Your task to perform on an android device: check data usage Image 0: 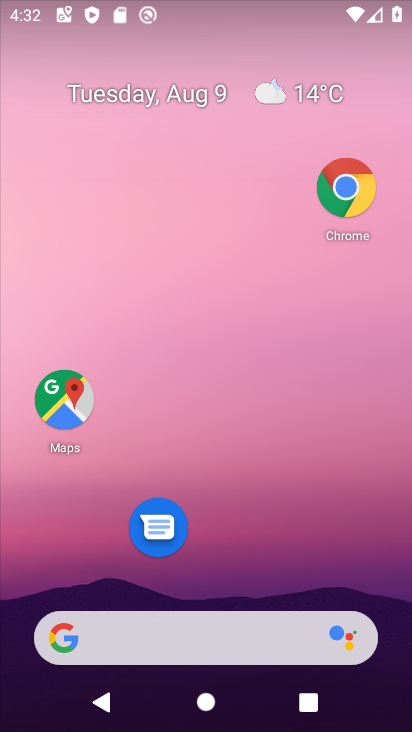
Step 0: drag from (217, 46) to (260, 515)
Your task to perform on an android device: check data usage Image 1: 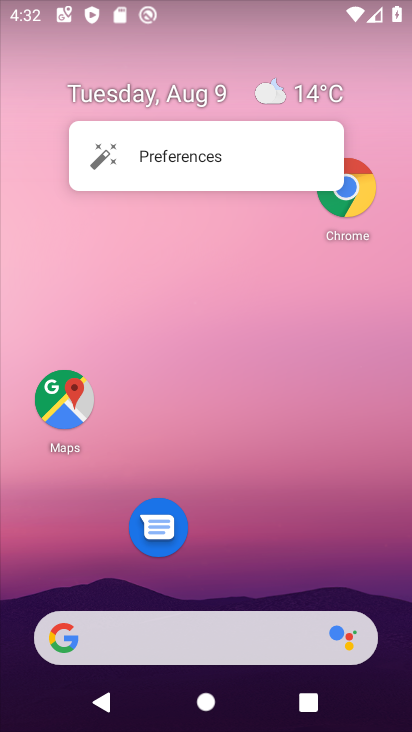
Step 1: drag from (205, 460) to (218, 511)
Your task to perform on an android device: check data usage Image 2: 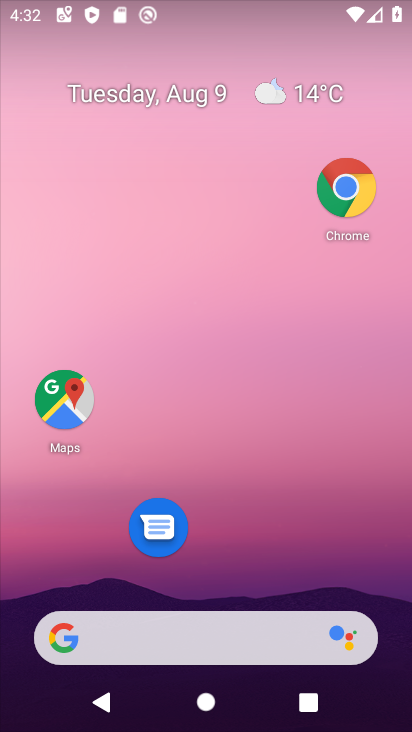
Step 2: drag from (172, 114) to (243, 474)
Your task to perform on an android device: check data usage Image 3: 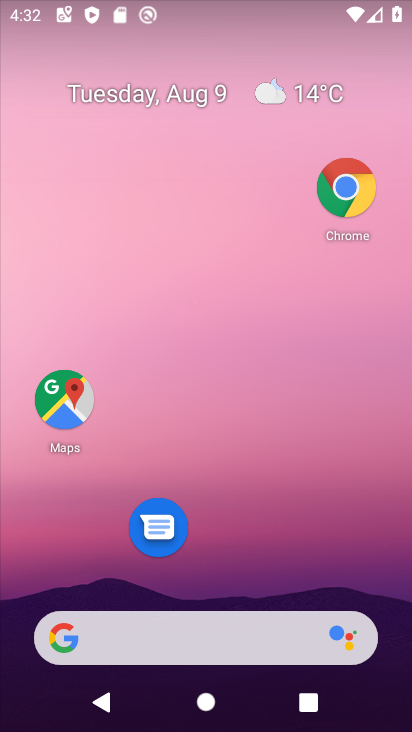
Step 3: drag from (213, 241) to (239, 630)
Your task to perform on an android device: check data usage Image 4: 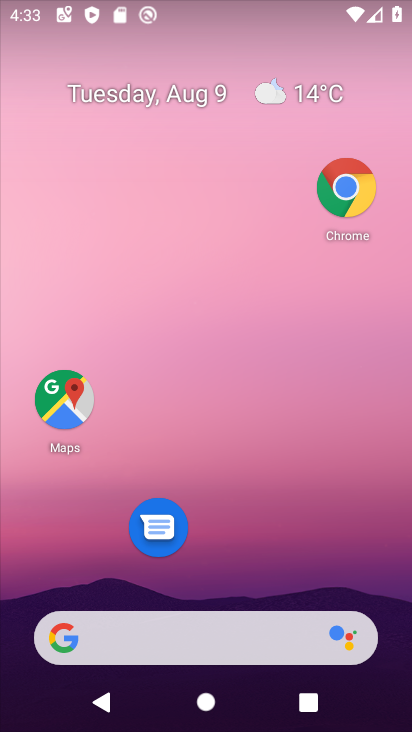
Step 4: drag from (209, 19) to (200, 670)
Your task to perform on an android device: check data usage Image 5: 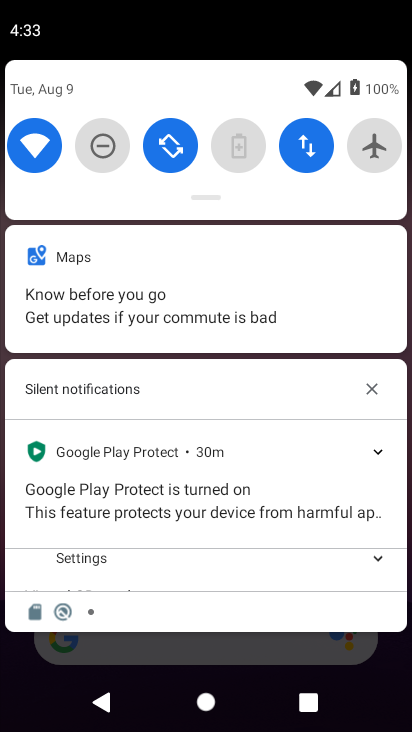
Step 5: click (319, 169)
Your task to perform on an android device: check data usage Image 6: 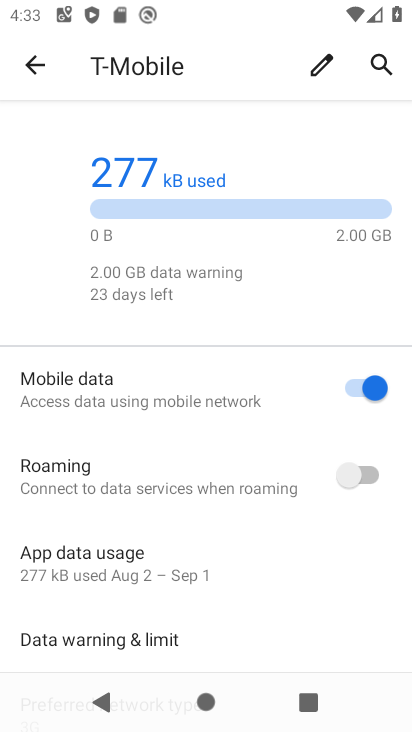
Step 6: task complete